Your task to perform on an android device: turn on javascript in the chrome app Image 0: 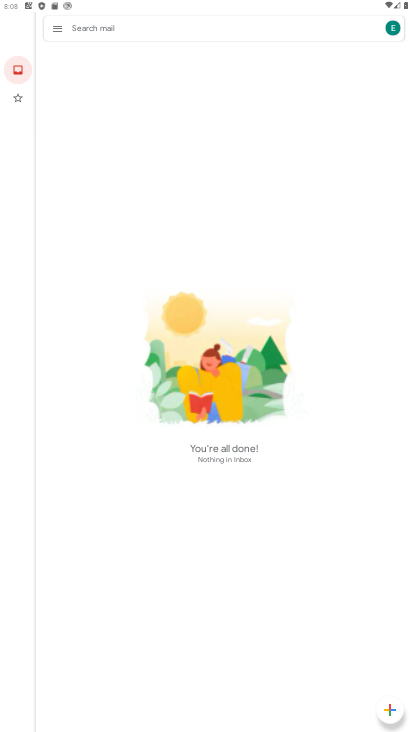
Step 0: press home button
Your task to perform on an android device: turn on javascript in the chrome app Image 1: 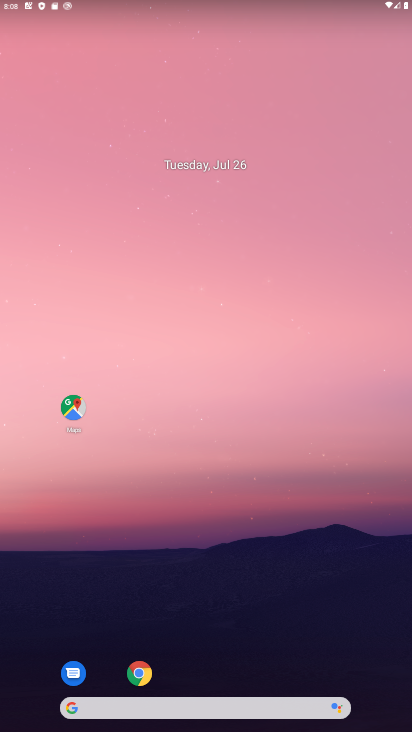
Step 1: click (133, 674)
Your task to perform on an android device: turn on javascript in the chrome app Image 2: 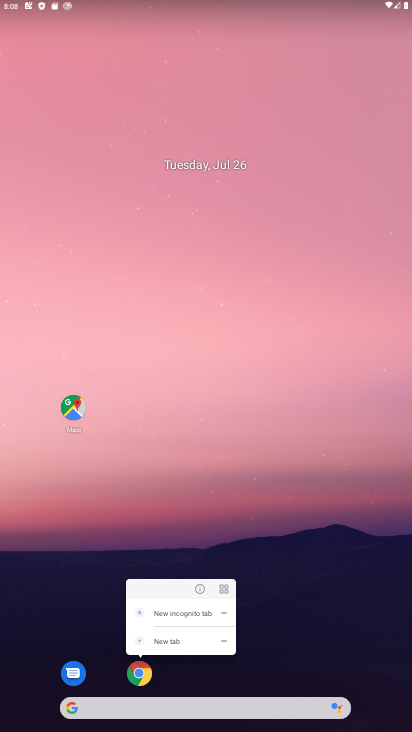
Step 2: click (138, 676)
Your task to perform on an android device: turn on javascript in the chrome app Image 3: 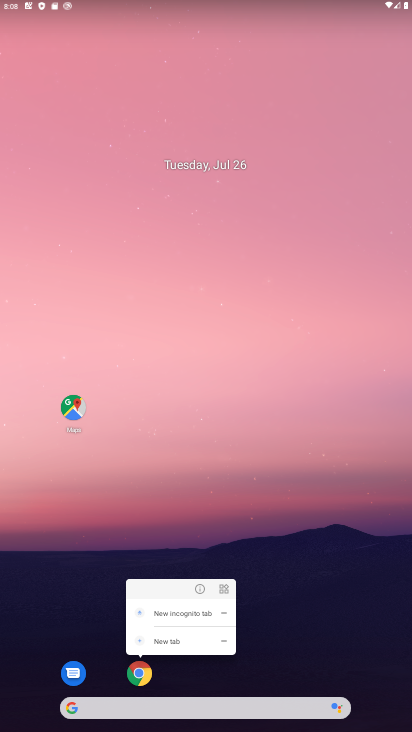
Step 3: click (140, 680)
Your task to perform on an android device: turn on javascript in the chrome app Image 4: 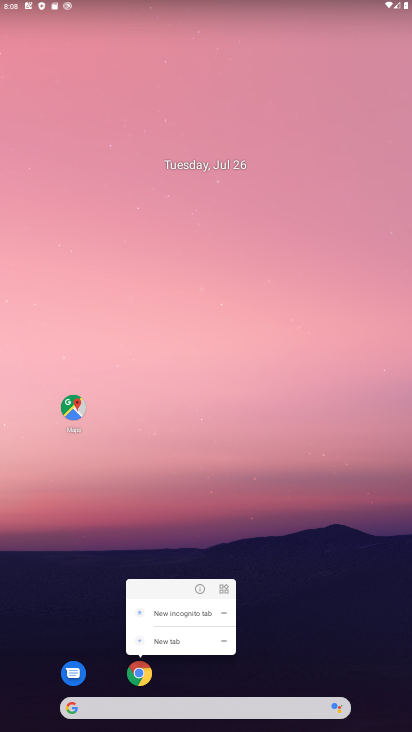
Step 4: click (130, 670)
Your task to perform on an android device: turn on javascript in the chrome app Image 5: 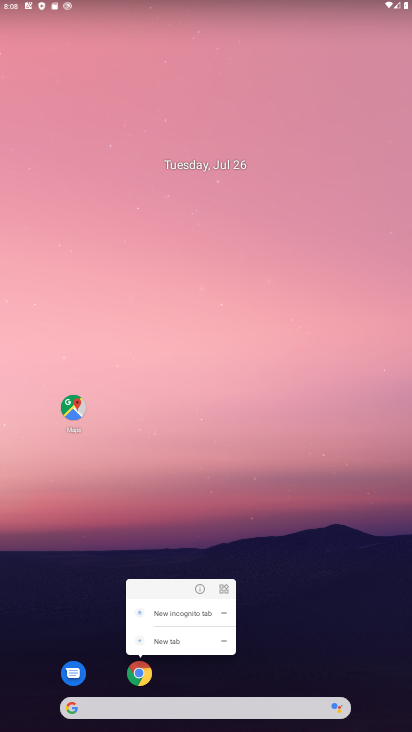
Step 5: click (130, 670)
Your task to perform on an android device: turn on javascript in the chrome app Image 6: 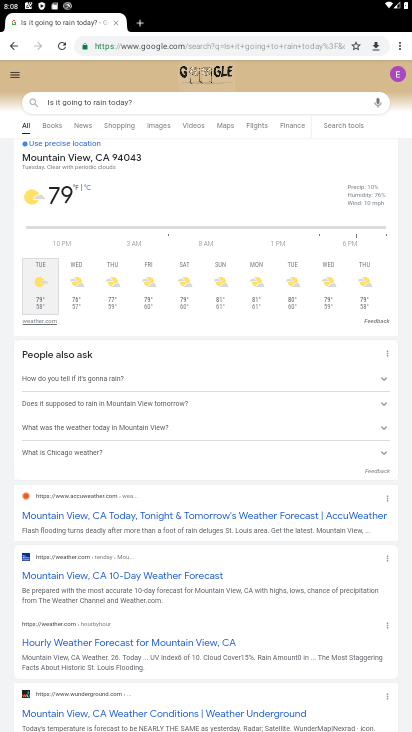
Step 6: click (402, 41)
Your task to perform on an android device: turn on javascript in the chrome app Image 7: 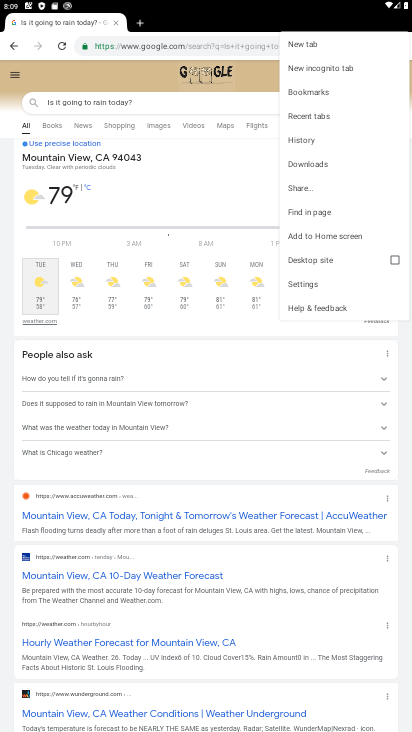
Step 7: click (315, 278)
Your task to perform on an android device: turn on javascript in the chrome app Image 8: 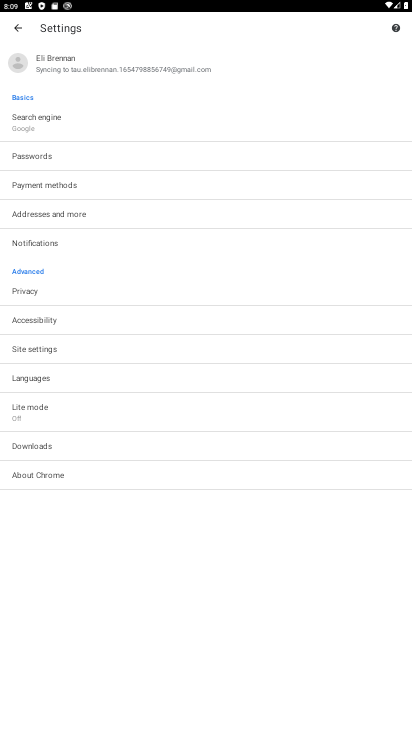
Step 8: click (64, 354)
Your task to perform on an android device: turn on javascript in the chrome app Image 9: 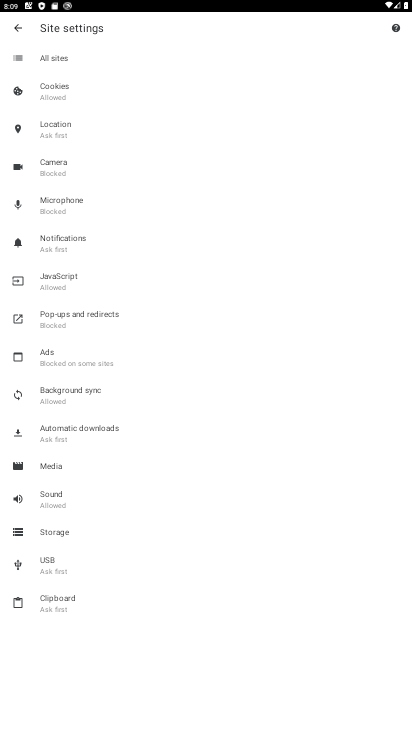
Step 9: click (71, 283)
Your task to perform on an android device: turn on javascript in the chrome app Image 10: 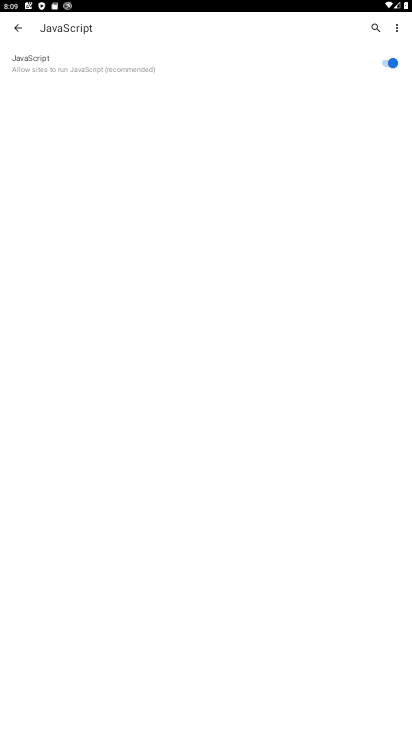
Step 10: task complete